Your task to perform on an android device: turn on priority inbox in the gmail app Image 0: 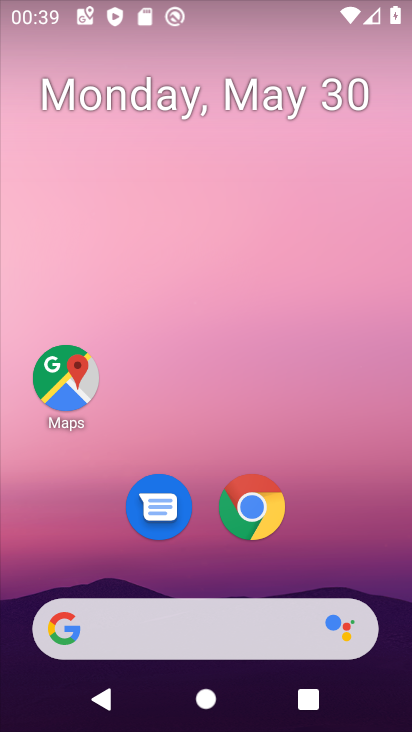
Step 0: drag from (330, 539) to (308, 267)
Your task to perform on an android device: turn on priority inbox in the gmail app Image 1: 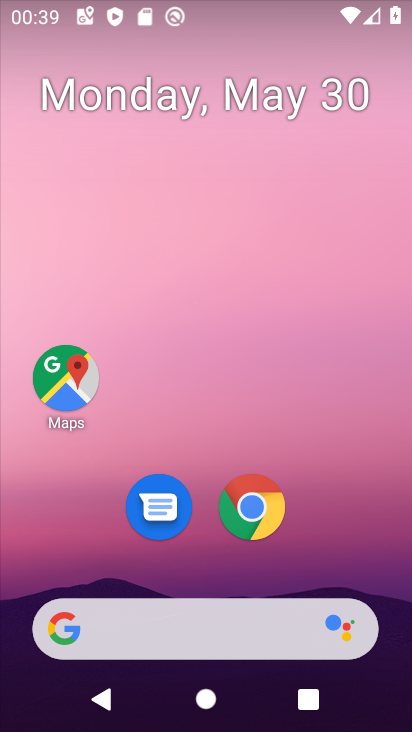
Step 1: drag from (315, 565) to (291, 165)
Your task to perform on an android device: turn on priority inbox in the gmail app Image 2: 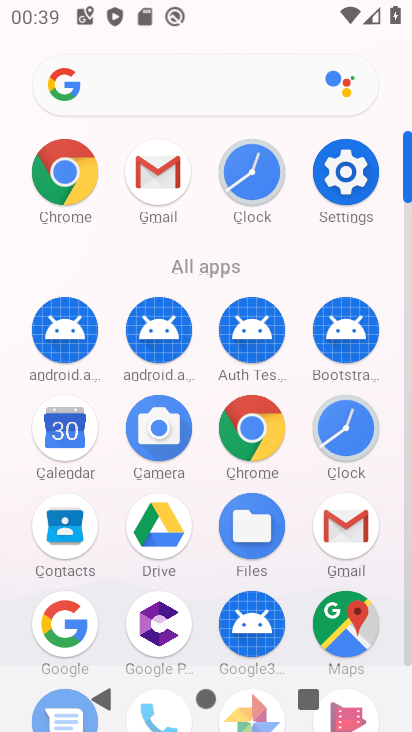
Step 2: click (334, 519)
Your task to perform on an android device: turn on priority inbox in the gmail app Image 3: 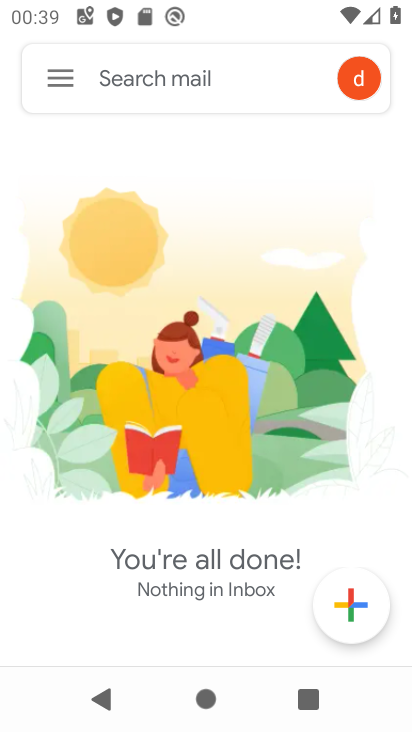
Step 3: click (59, 74)
Your task to perform on an android device: turn on priority inbox in the gmail app Image 4: 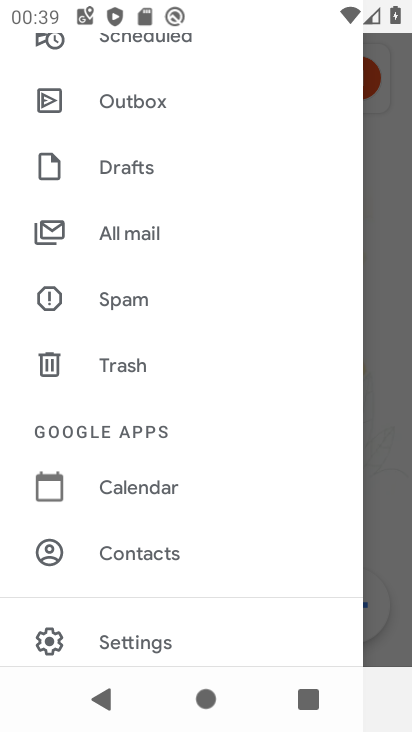
Step 4: click (131, 630)
Your task to perform on an android device: turn on priority inbox in the gmail app Image 5: 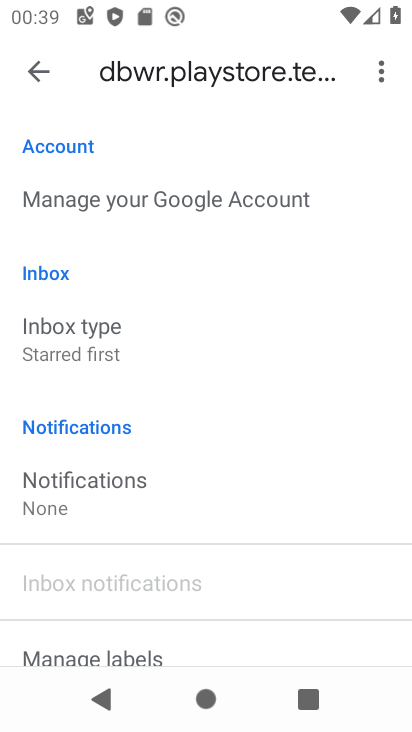
Step 5: drag from (160, 512) to (165, 424)
Your task to perform on an android device: turn on priority inbox in the gmail app Image 6: 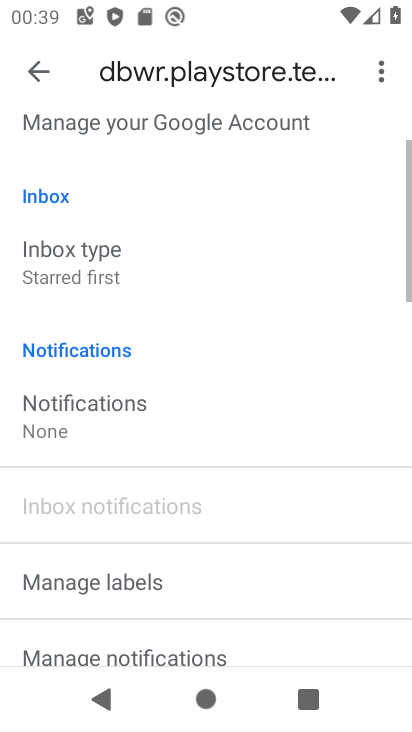
Step 6: click (84, 273)
Your task to perform on an android device: turn on priority inbox in the gmail app Image 7: 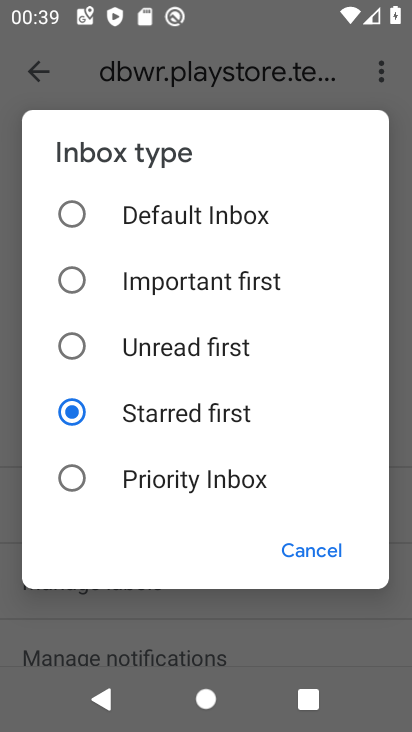
Step 7: click (125, 486)
Your task to perform on an android device: turn on priority inbox in the gmail app Image 8: 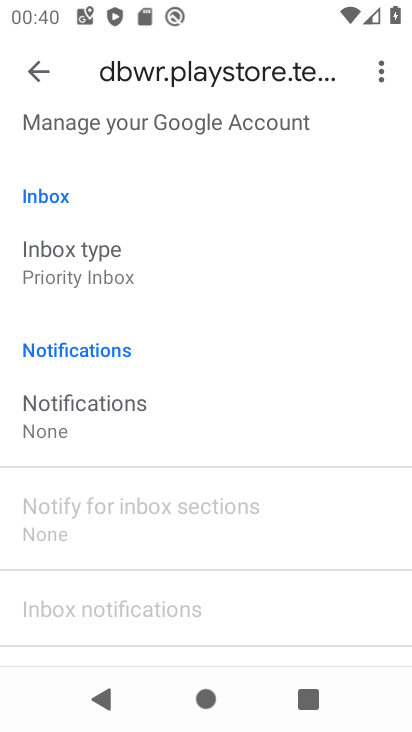
Step 8: task complete